Your task to perform on an android device: Open the stopwatch Image 0: 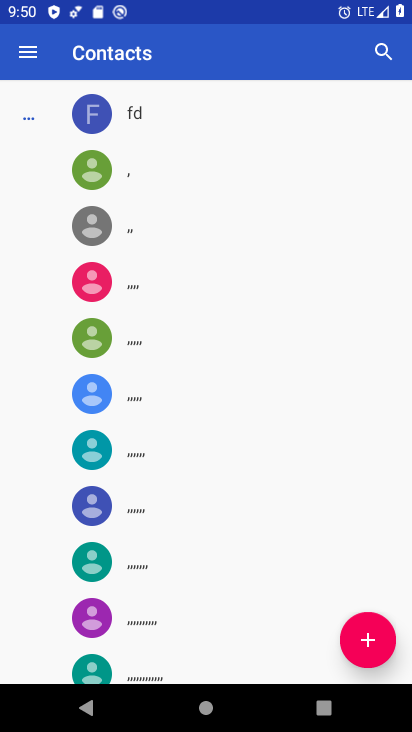
Step 0: press home button
Your task to perform on an android device: Open the stopwatch Image 1: 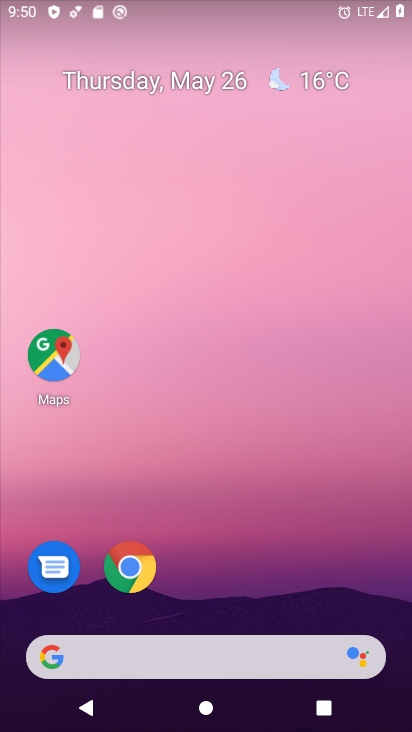
Step 1: drag from (408, 689) to (356, 279)
Your task to perform on an android device: Open the stopwatch Image 2: 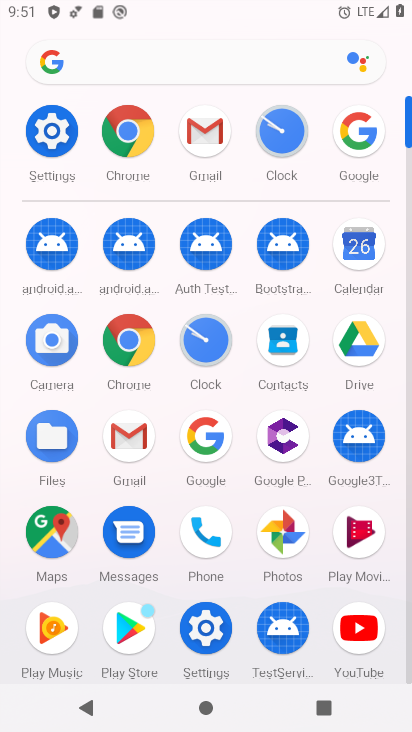
Step 2: click (50, 137)
Your task to perform on an android device: Open the stopwatch Image 3: 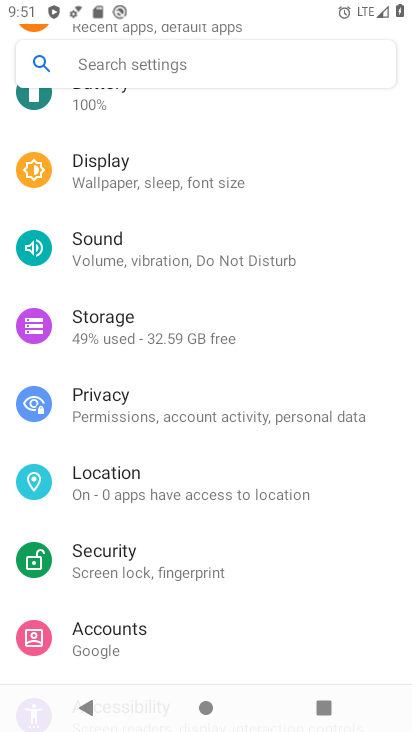
Step 3: press back button
Your task to perform on an android device: Open the stopwatch Image 4: 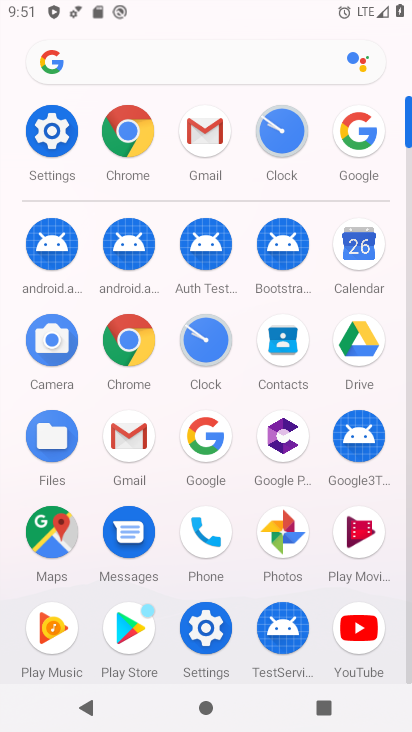
Step 4: click (218, 349)
Your task to perform on an android device: Open the stopwatch Image 5: 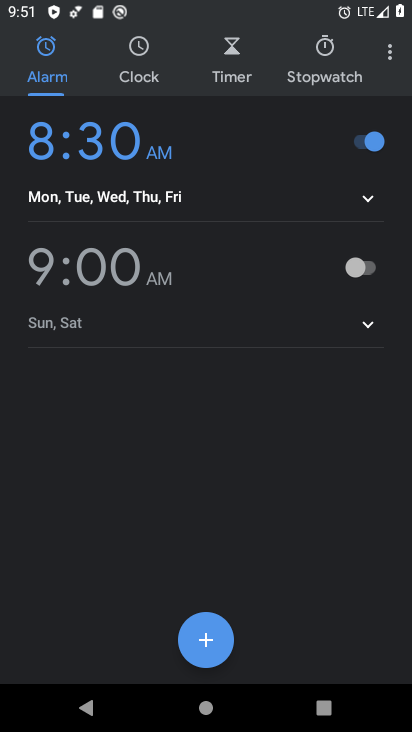
Step 5: click (391, 51)
Your task to perform on an android device: Open the stopwatch Image 6: 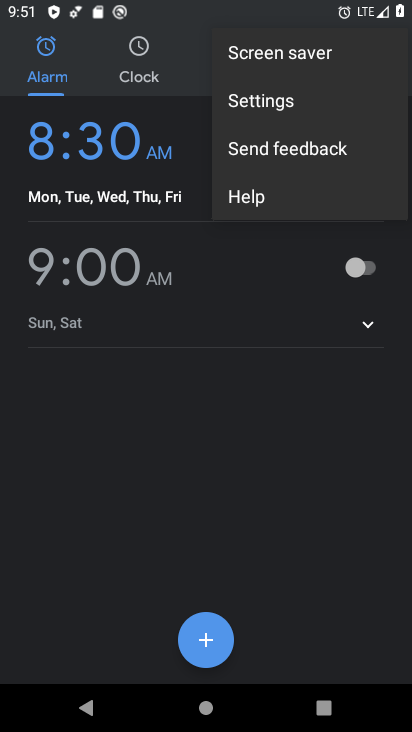
Step 6: click (140, 458)
Your task to perform on an android device: Open the stopwatch Image 7: 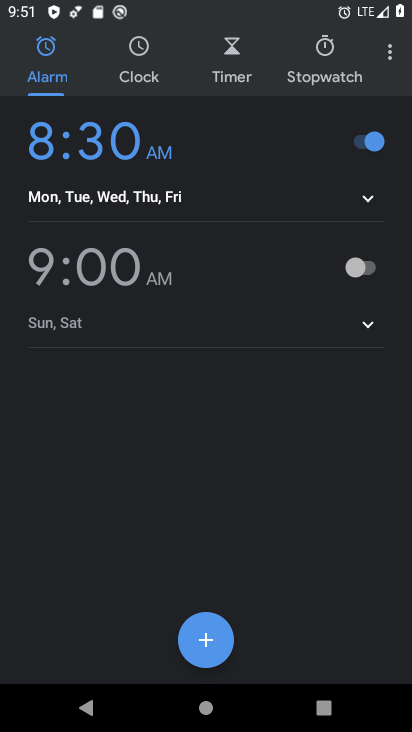
Step 7: click (316, 50)
Your task to perform on an android device: Open the stopwatch Image 8: 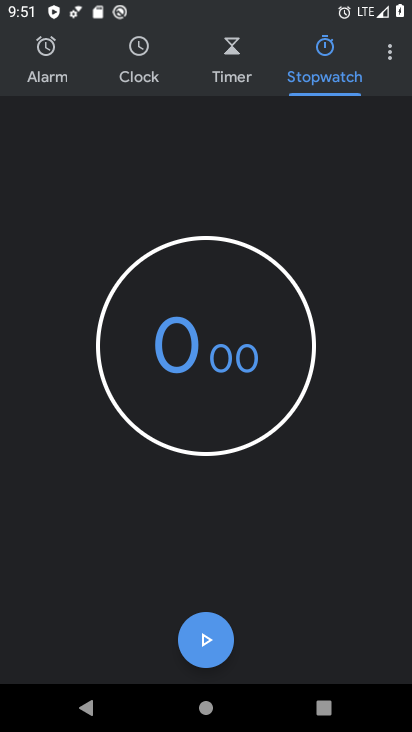
Step 8: task complete